Your task to perform on an android device: install app "Google Sheets" Image 0: 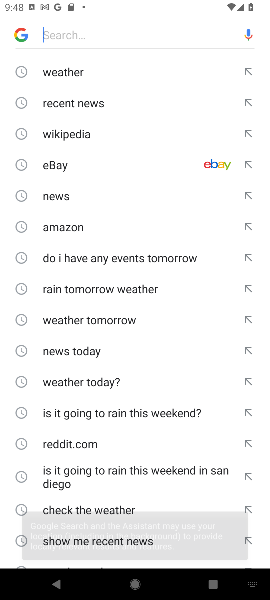
Step 0: press back button
Your task to perform on an android device: install app "Google Sheets" Image 1: 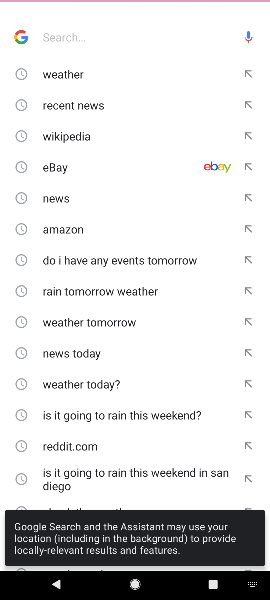
Step 1: press home button
Your task to perform on an android device: install app "Google Sheets" Image 2: 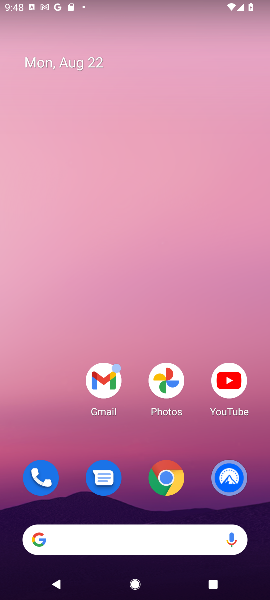
Step 2: drag from (130, 514) to (140, 42)
Your task to perform on an android device: install app "Google Sheets" Image 3: 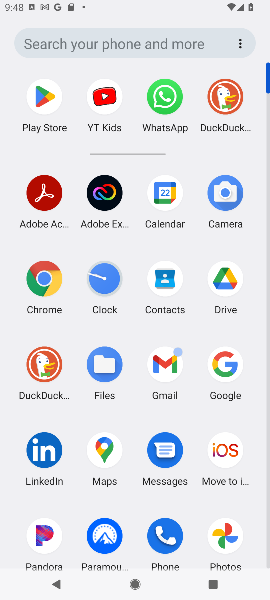
Step 3: click (35, 114)
Your task to perform on an android device: install app "Google Sheets" Image 4: 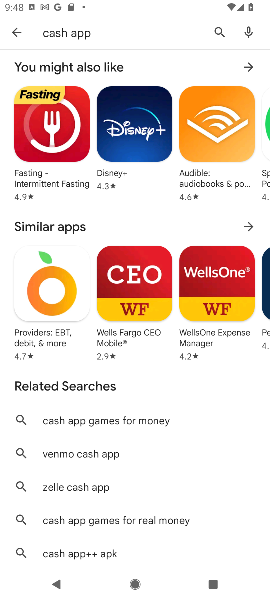
Step 4: click (216, 26)
Your task to perform on an android device: install app "Google Sheets" Image 5: 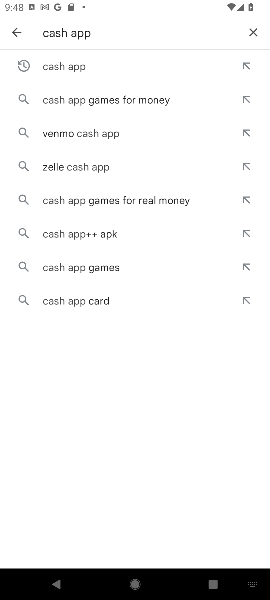
Step 5: click (251, 32)
Your task to perform on an android device: install app "Google Sheets" Image 6: 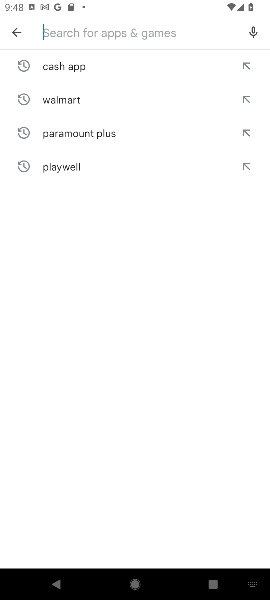
Step 6: type "google sheet"
Your task to perform on an android device: install app "Google Sheets" Image 7: 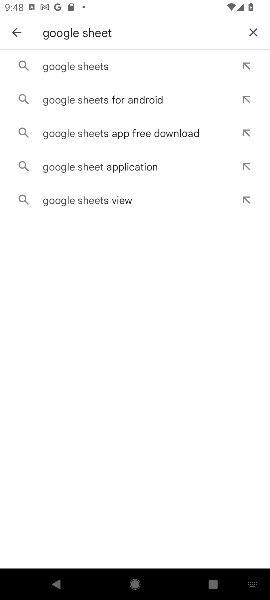
Step 7: click (75, 60)
Your task to perform on an android device: install app "Google Sheets" Image 8: 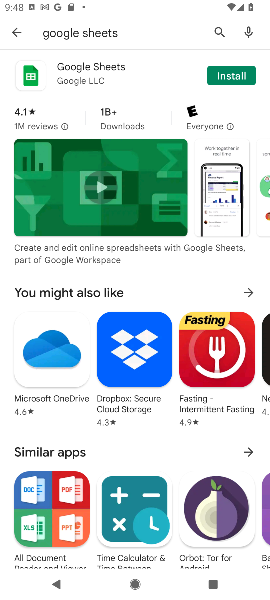
Step 8: click (217, 70)
Your task to perform on an android device: install app "Google Sheets" Image 9: 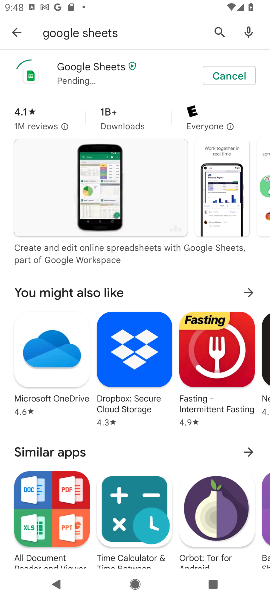
Step 9: task complete